Your task to perform on an android device: What is the recent news? Image 0: 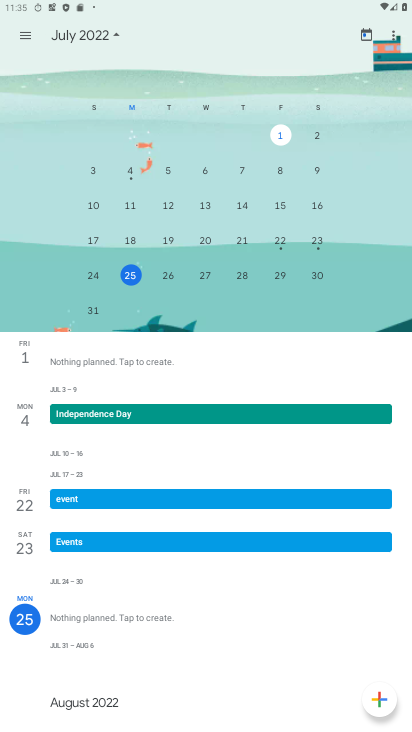
Step 0: press home button
Your task to perform on an android device: What is the recent news? Image 1: 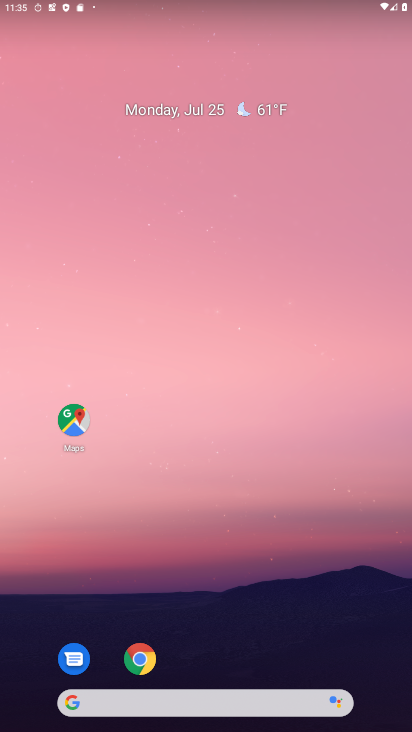
Step 1: click (111, 706)
Your task to perform on an android device: What is the recent news? Image 2: 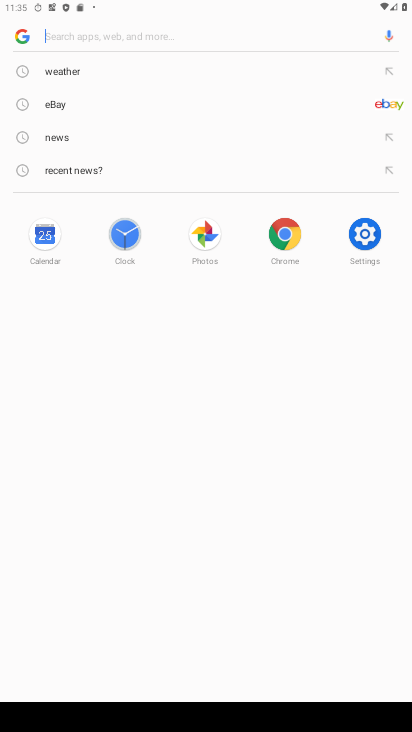
Step 2: type "What is the recent news?"
Your task to perform on an android device: What is the recent news? Image 3: 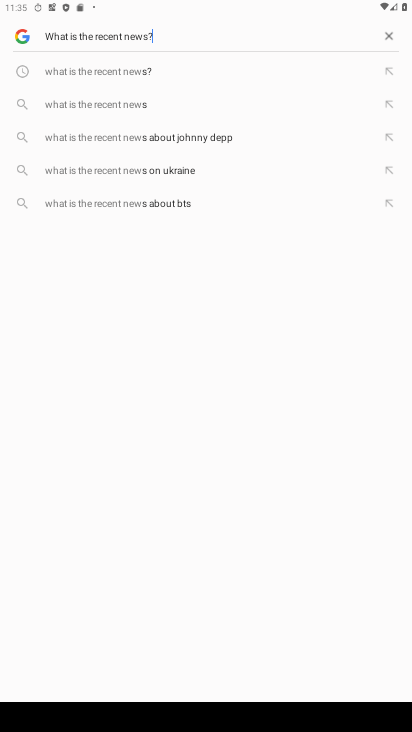
Step 3: type ""
Your task to perform on an android device: What is the recent news? Image 4: 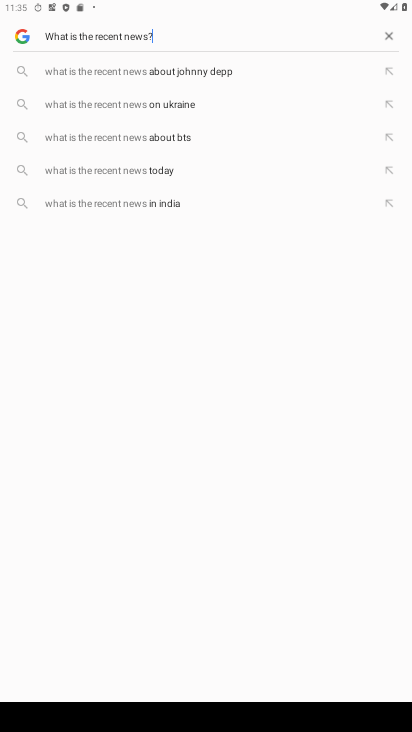
Step 4: type ""
Your task to perform on an android device: What is the recent news? Image 5: 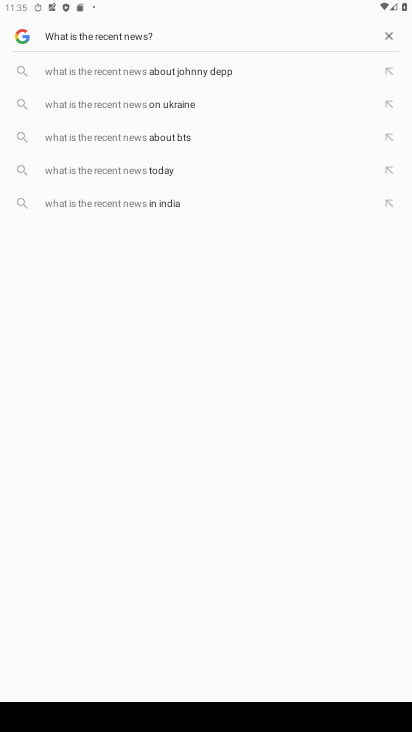
Step 5: type ""
Your task to perform on an android device: What is the recent news? Image 6: 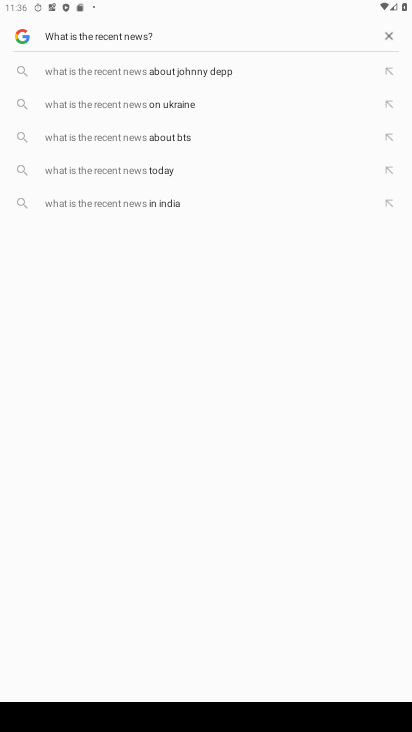
Step 6: task complete